Your task to perform on an android device: open wifi settings Image 0: 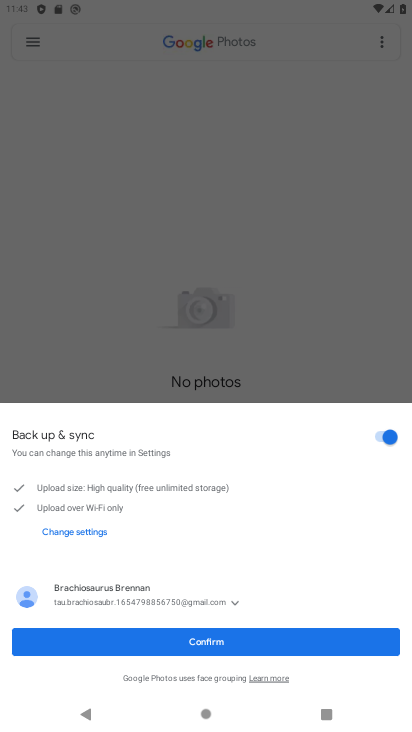
Step 0: press home button
Your task to perform on an android device: open wifi settings Image 1: 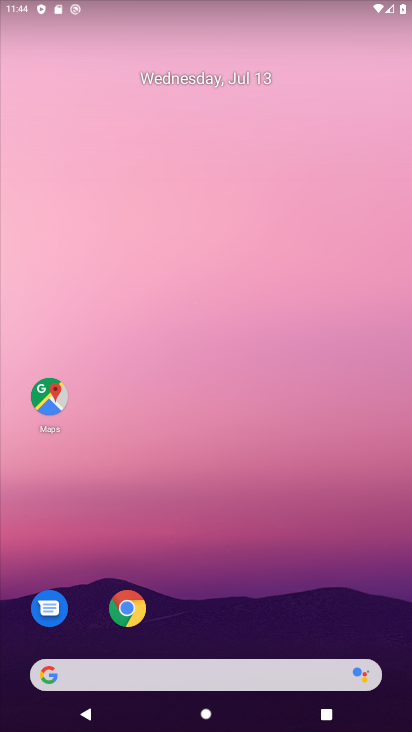
Step 1: drag from (351, 6) to (221, 507)
Your task to perform on an android device: open wifi settings Image 2: 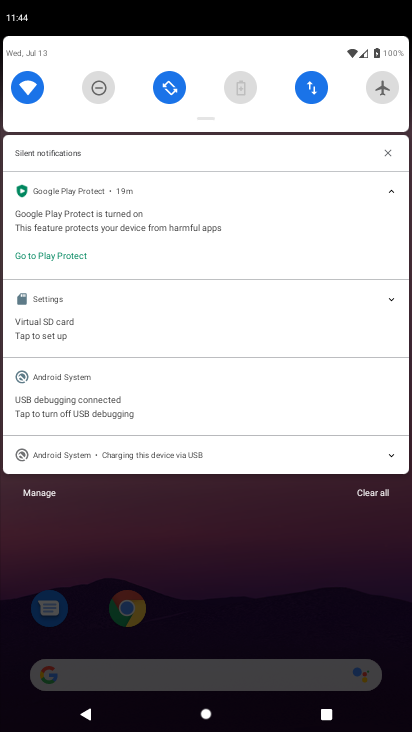
Step 2: click (38, 84)
Your task to perform on an android device: open wifi settings Image 3: 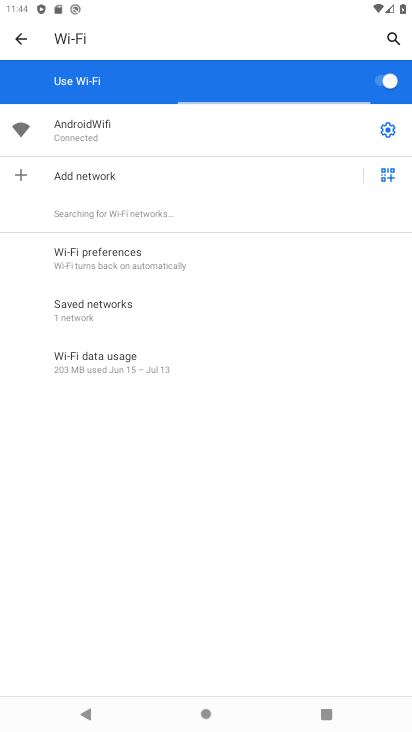
Step 3: click (394, 128)
Your task to perform on an android device: open wifi settings Image 4: 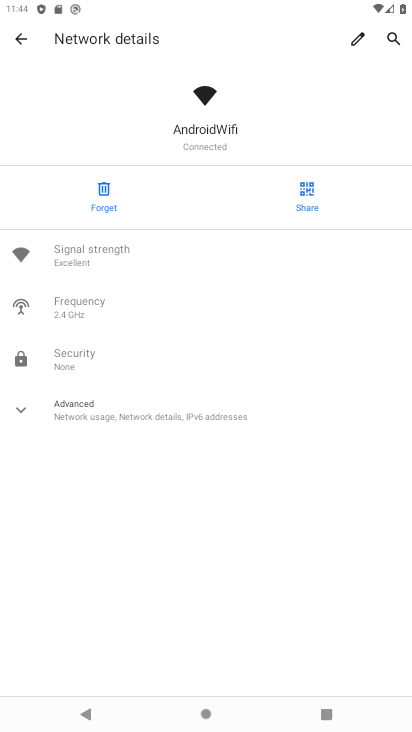
Step 4: task complete